Your task to perform on an android device: turn on sleep mode Image 0: 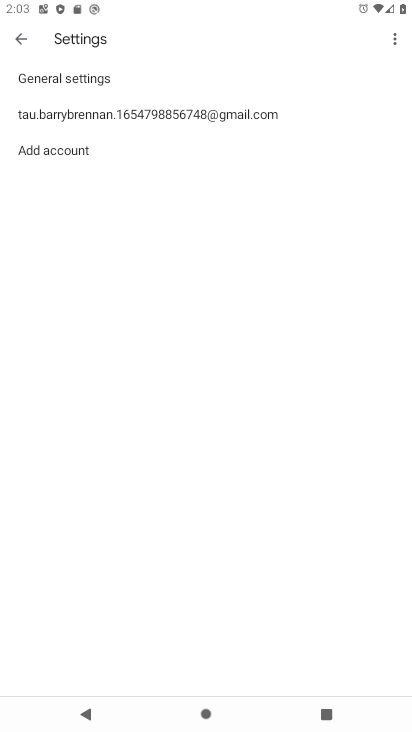
Step 0: drag from (194, 11) to (93, 487)
Your task to perform on an android device: turn on sleep mode Image 1: 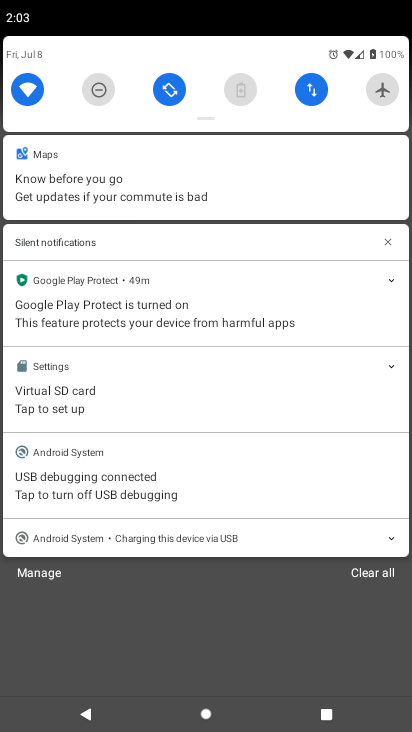
Step 1: drag from (199, 57) to (177, 501)
Your task to perform on an android device: turn on sleep mode Image 2: 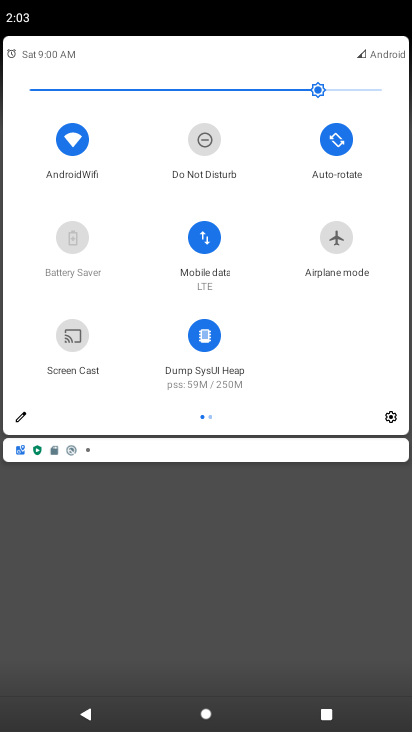
Step 2: click (389, 423)
Your task to perform on an android device: turn on sleep mode Image 3: 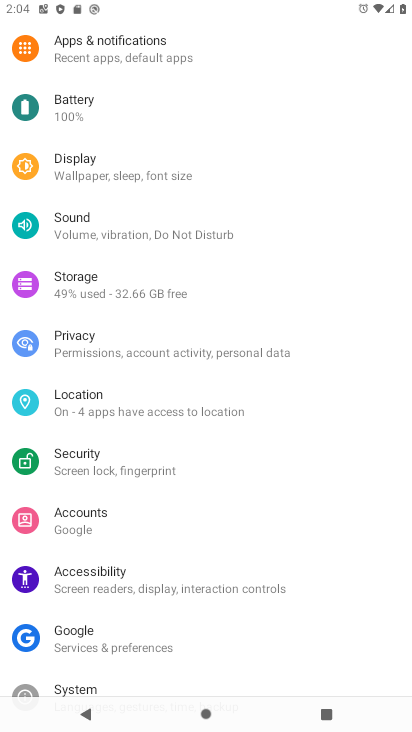
Step 3: task complete